Your task to perform on an android device: turn on improve location accuracy Image 0: 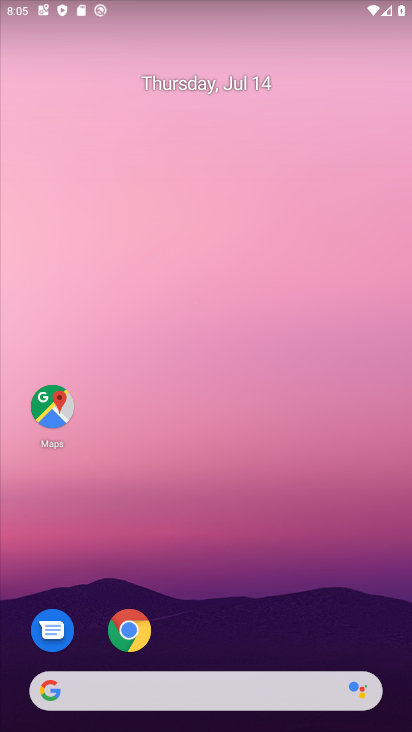
Step 0: drag from (279, 547) to (314, 12)
Your task to perform on an android device: turn on improve location accuracy Image 1: 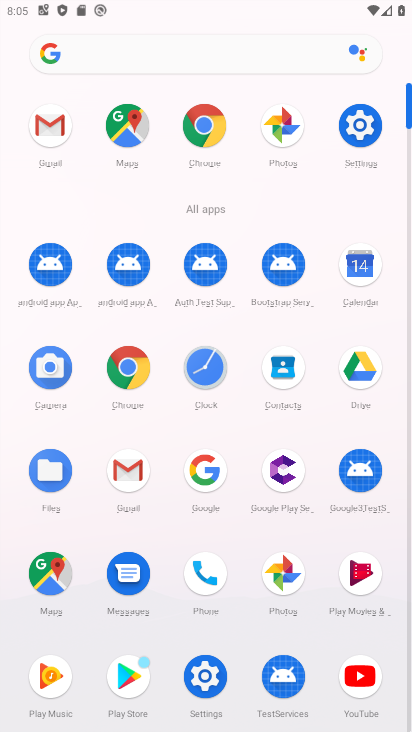
Step 1: click (360, 120)
Your task to perform on an android device: turn on improve location accuracy Image 2: 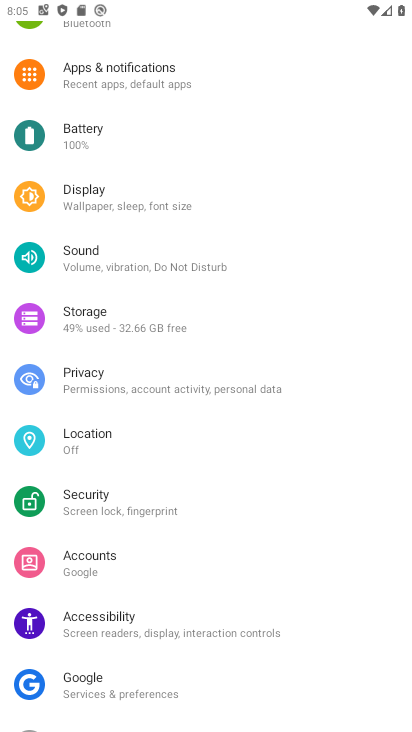
Step 2: click (102, 457)
Your task to perform on an android device: turn on improve location accuracy Image 3: 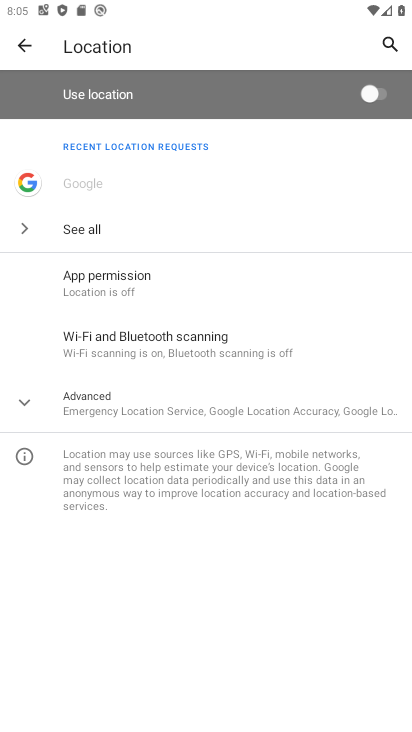
Step 3: click (151, 399)
Your task to perform on an android device: turn on improve location accuracy Image 4: 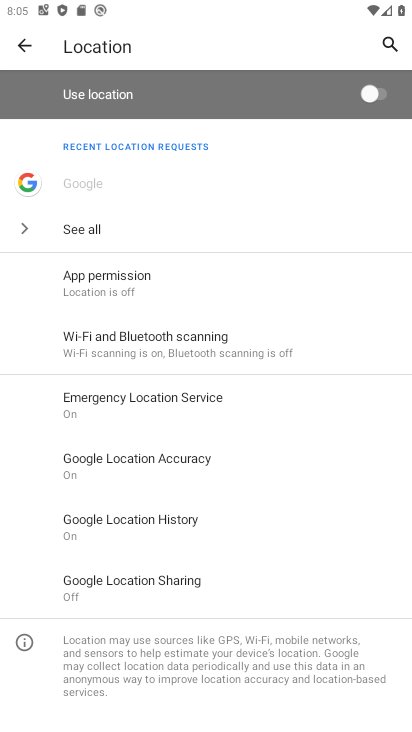
Step 4: click (144, 465)
Your task to perform on an android device: turn on improve location accuracy Image 5: 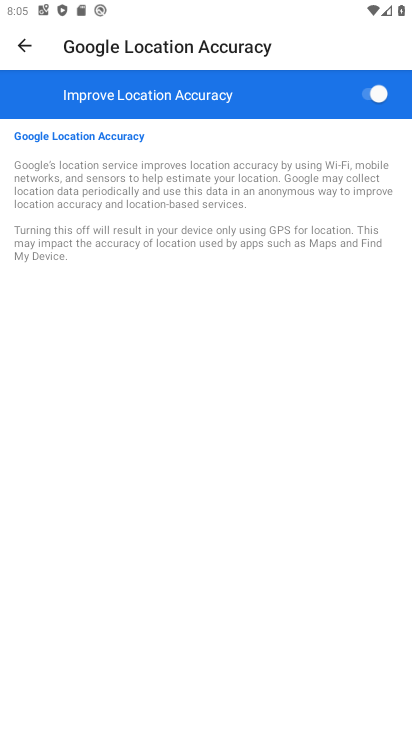
Step 5: task complete